Your task to perform on an android device: snooze an email in the gmail app Image 0: 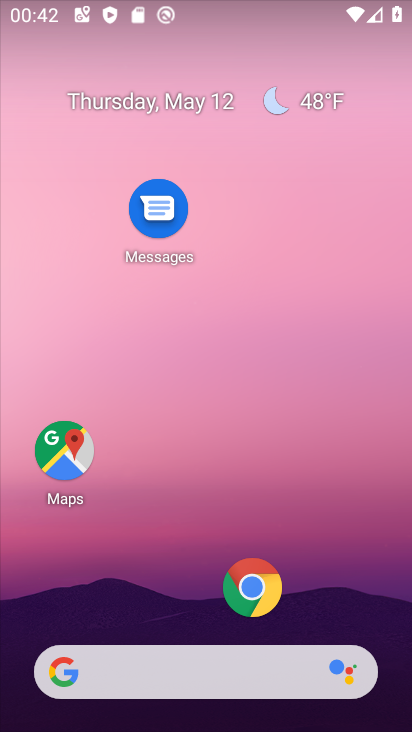
Step 0: drag from (173, 635) to (181, 44)
Your task to perform on an android device: snooze an email in the gmail app Image 1: 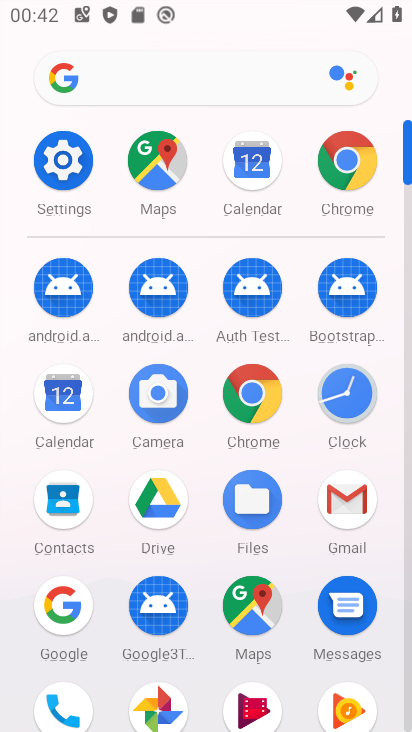
Step 1: click (345, 503)
Your task to perform on an android device: snooze an email in the gmail app Image 2: 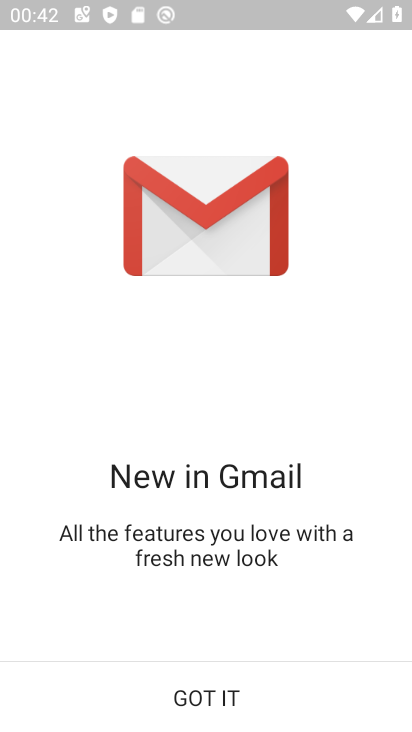
Step 2: click (234, 715)
Your task to perform on an android device: snooze an email in the gmail app Image 3: 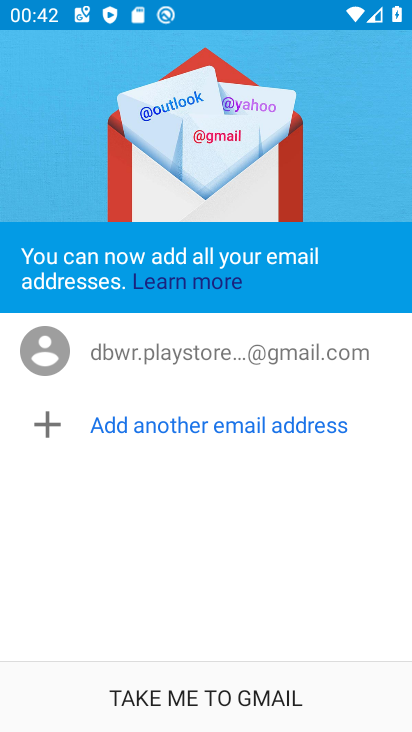
Step 3: click (172, 717)
Your task to perform on an android device: snooze an email in the gmail app Image 4: 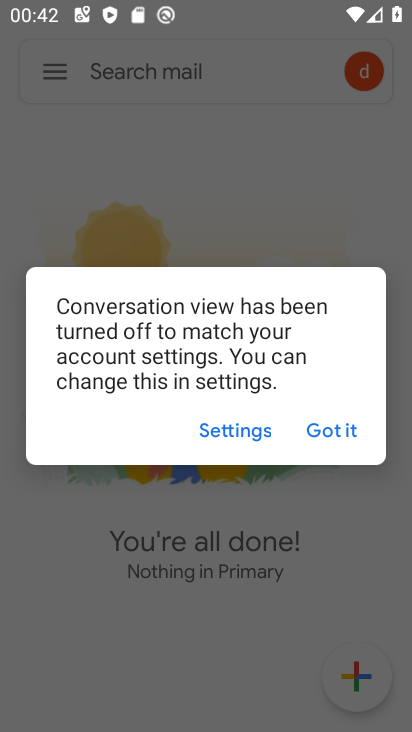
Step 4: click (340, 430)
Your task to perform on an android device: snooze an email in the gmail app Image 5: 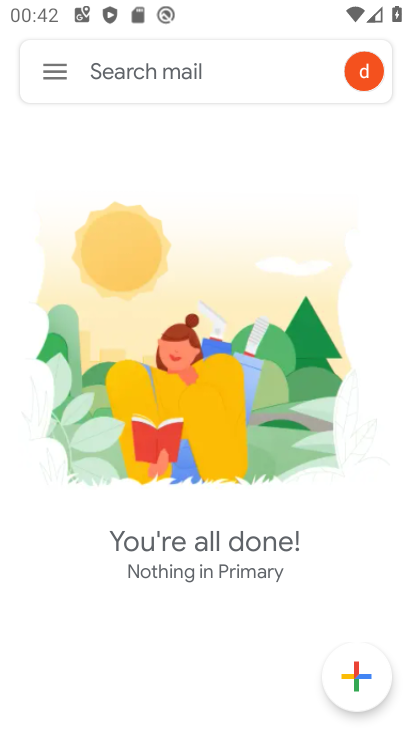
Step 5: click (36, 63)
Your task to perform on an android device: snooze an email in the gmail app Image 6: 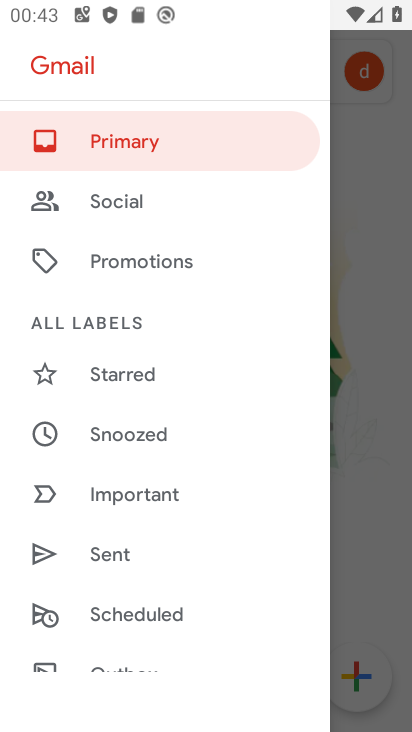
Step 6: drag from (172, 523) to (134, 172)
Your task to perform on an android device: snooze an email in the gmail app Image 7: 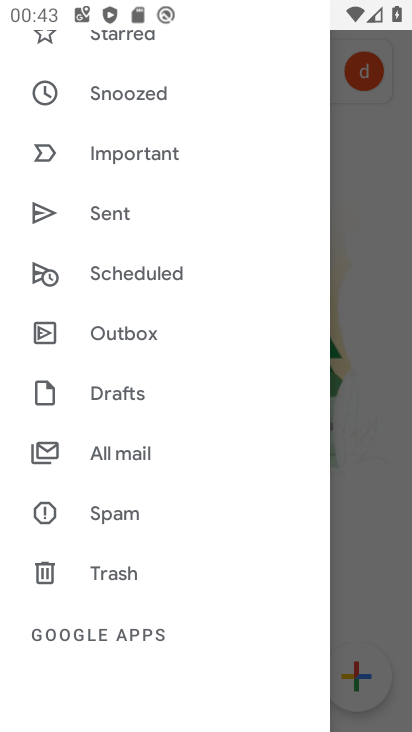
Step 7: click (134, 457)
Your task to perform on an android device: snooze an email in the gmail app Image 8: 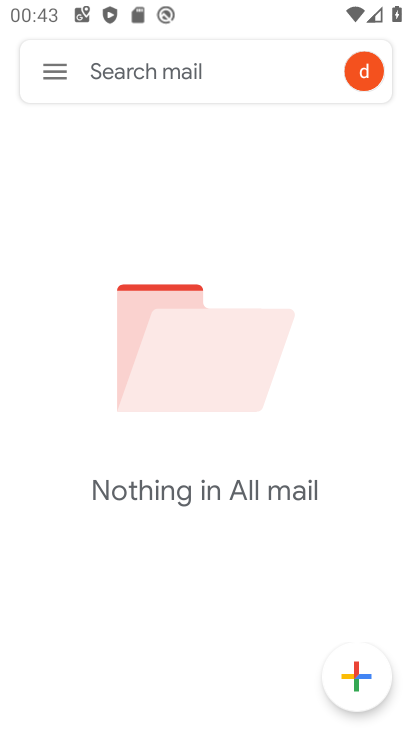
Step 8: task complete